Your task to perform on an android device: refresh tabs in the chrome app Image 0: 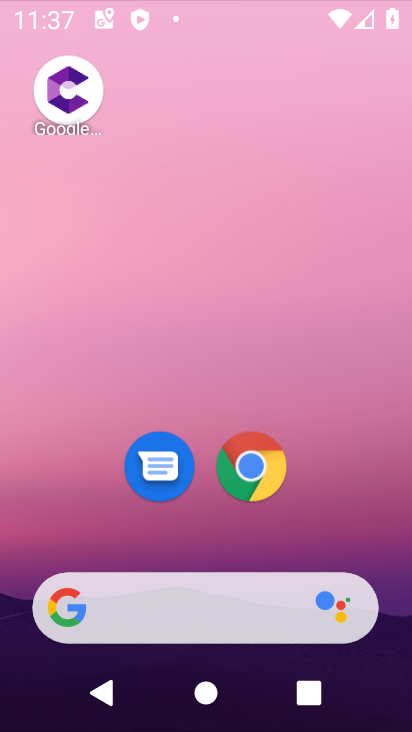
Step 0: press home button
Your task to perform on an android device: refresh tabs in the chrome app Image 1: 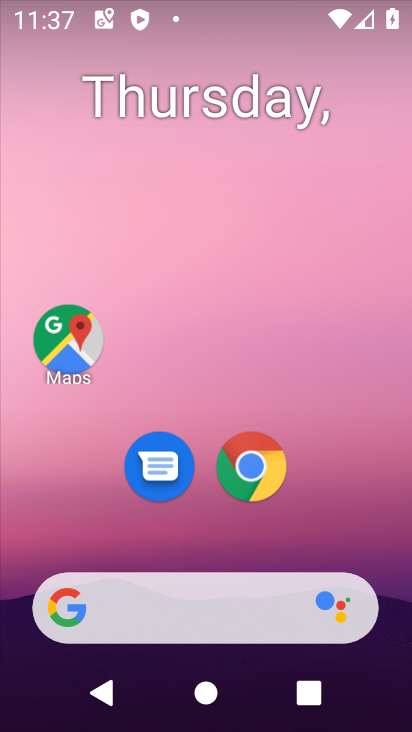
Step 1: click (245, 481)
Your task to perform on an android device: refresh tabs in the chrome app Image 2: 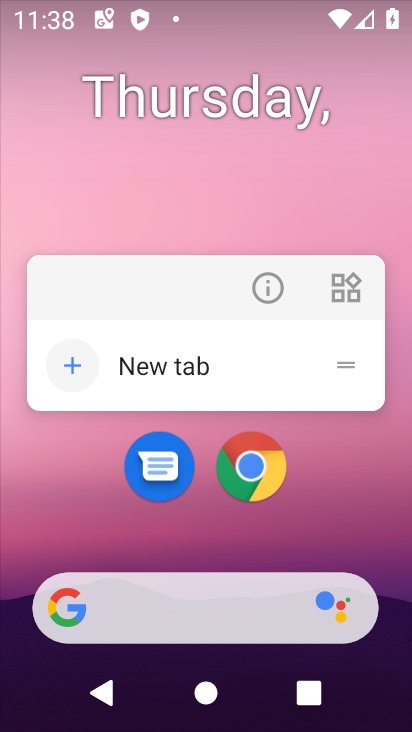
Step 2: click (245, 468)
Your task to perform on an android device: refresh tabs in the chrome app Image 3: 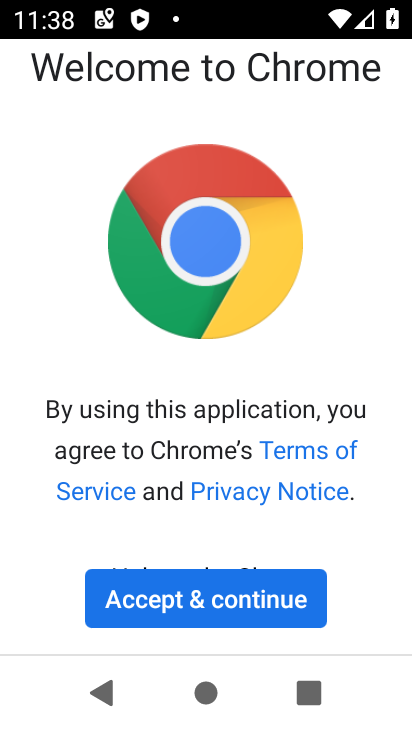
Step 3: click (180, 592)
Your task to perform on an android device: refresh tabs in the chrome app Image 4: 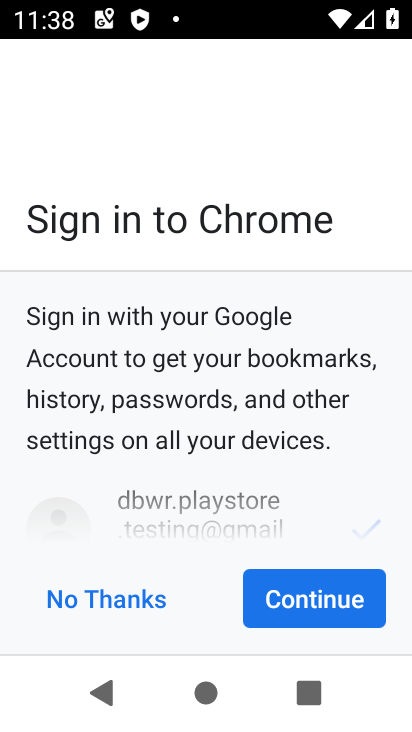
Step 4: click (292, 602)
Your task to perform on an android device: refresh tabs in the chrome app Image 5: 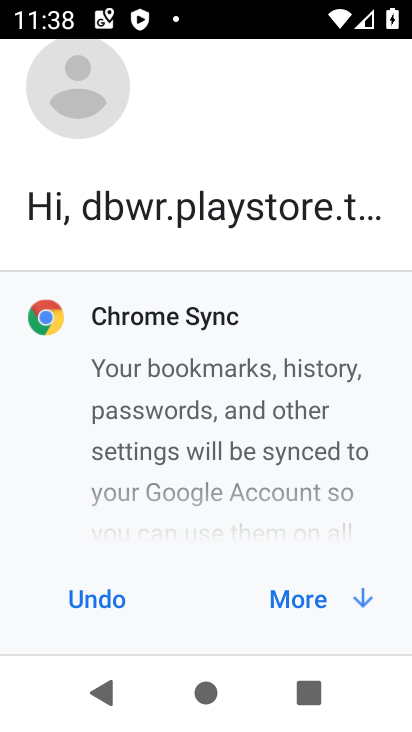
Step 5: click (292, 602)
Your task to perform on an android device: refresh tabs in the chrome app Image 6: 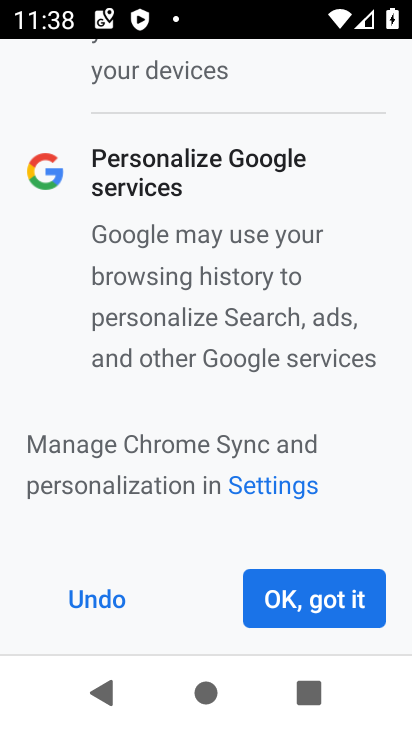
Step 6: click (291, 602)
Your task to perform on an android device: refresh tabs in the chrome app Image 7: 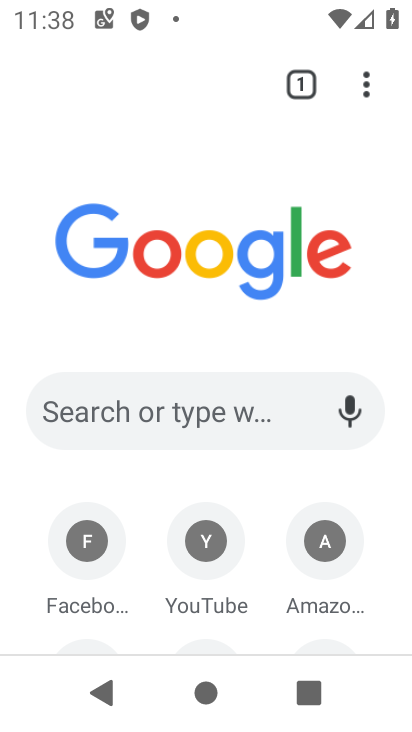
Step 7: click (363, 87)
Your task to perform on an android device: refresh tabs in the chrome app Image 8: 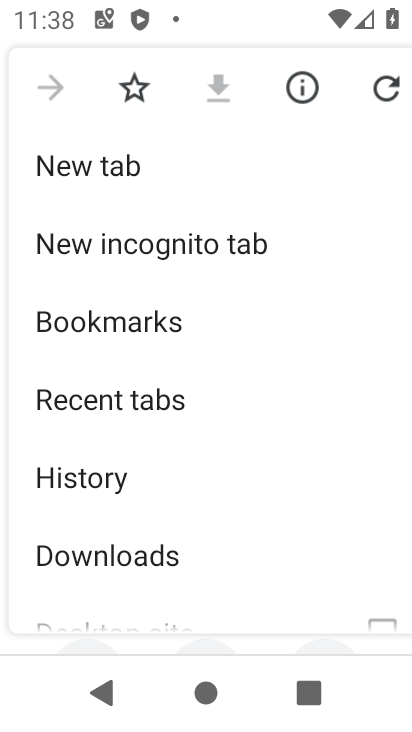
Step 8: click (381, 101)
Your task to perform on an android device: refresh tabs in the chrome app Image 9: 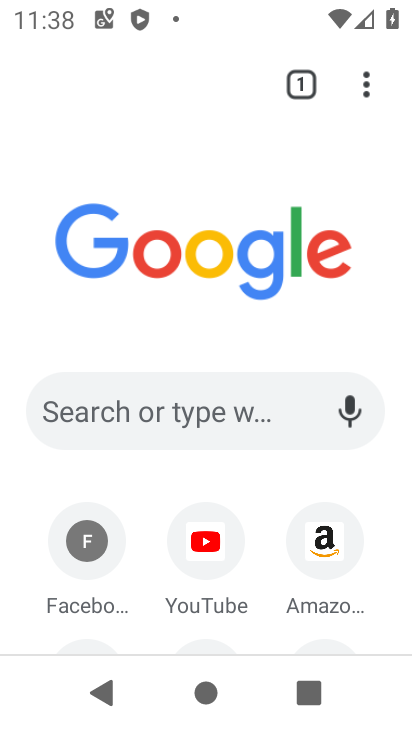
Step 9: click (364, 89)
Your task to perform on an android device: refresh tabs in the chrome app Image 10: 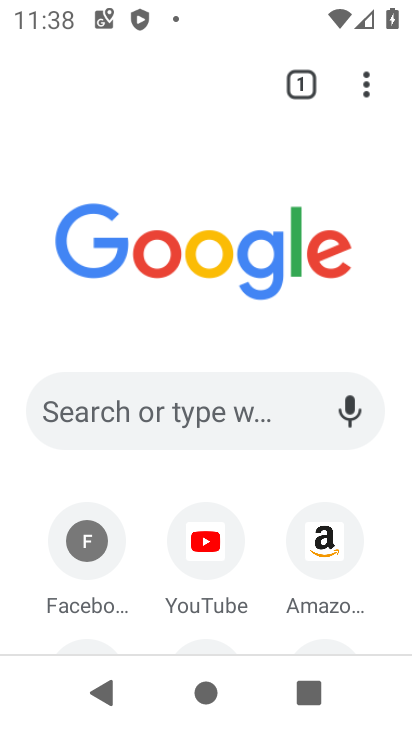
Step 10: click (368, 93)
Your task to perform on an android device: refresh tabs in the chrome app Image 11: 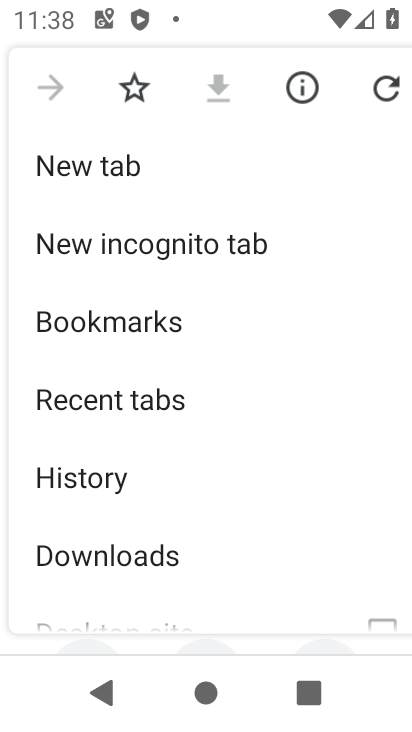
Step 11: click (392, 89)
Your task to perform on an android device: refresh tabs in the chrome app Image 12: 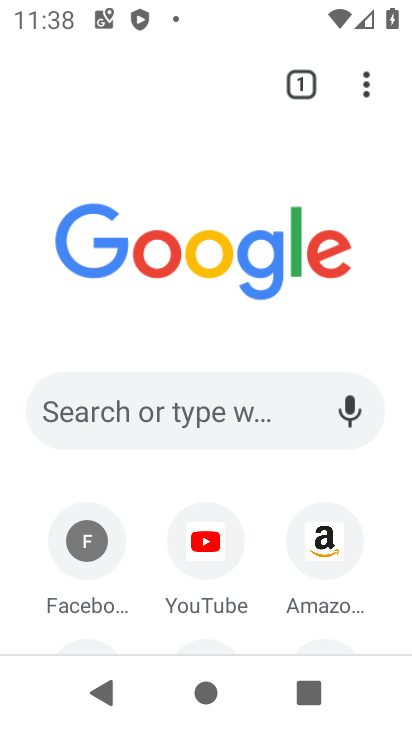
Step 12: task complete